Your task to perform on an android device: Open the calendar and show me this week's events Image 0: 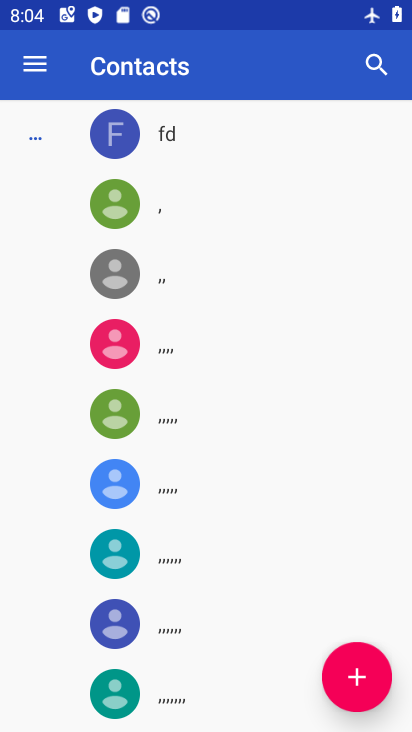
Step 0: press home button
Your task to perform on an android device: Open the calendar and show me this week's events Image 1: 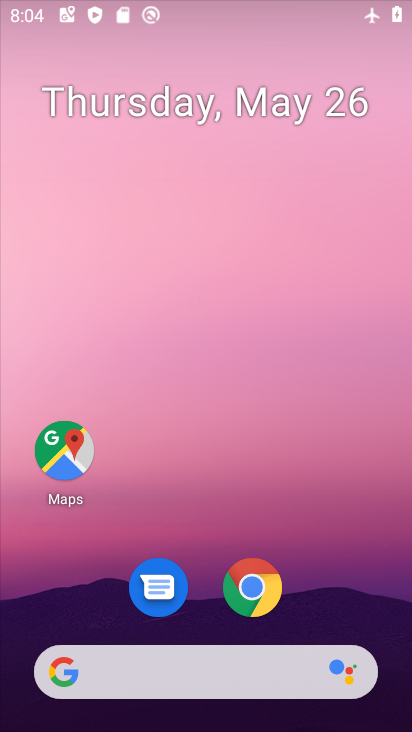
Step 1: drag from (205, 620) to (208, 157)
Your task to perform on an android device: Open the calendar and show me this week's events Image 2: 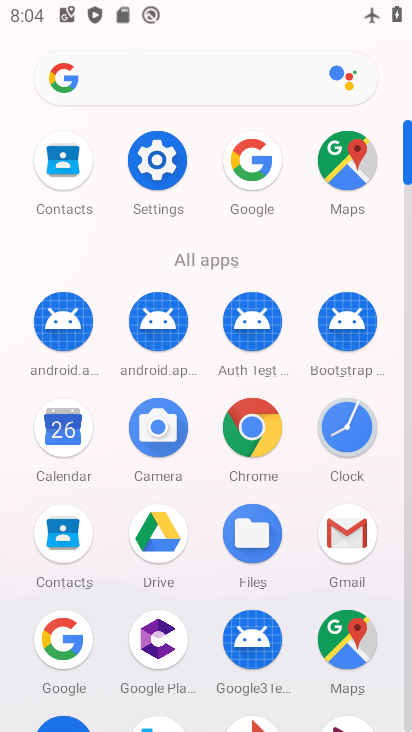
Step 2: click (69, 409)
Your task to perform on an android device: Open the calendar and show me this week's events Image 3: 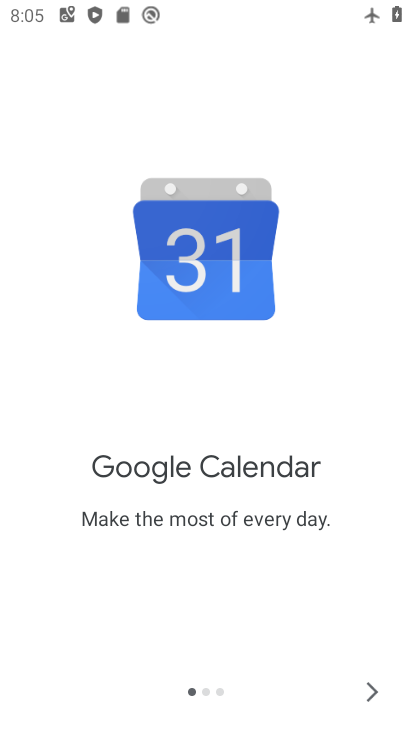
Step 3: click (368, 668)
Your task to perform on an android device: Open the calendar and show me this week's events Image 4: 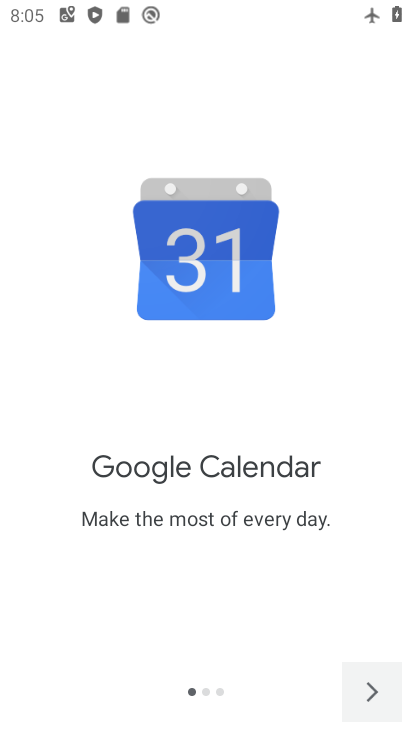
Step 4: click (373, 684)
Your task to perform on an android device: Open the calendar and show me this week's events Image 5: 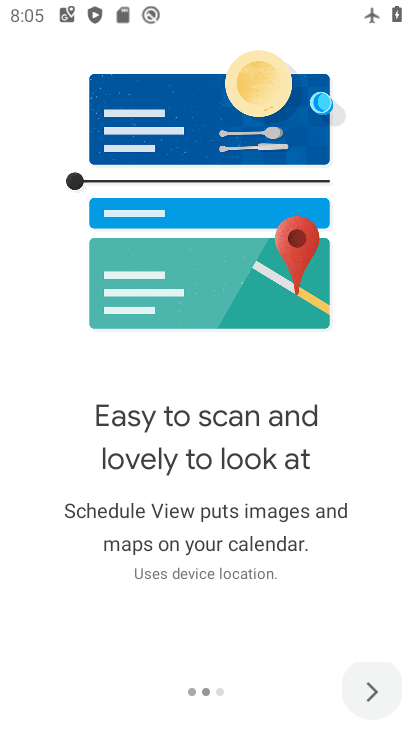
Step 5: click (373, 684)
Your task to perform on an android device: Open the calendar and show me this week's events Image 6: 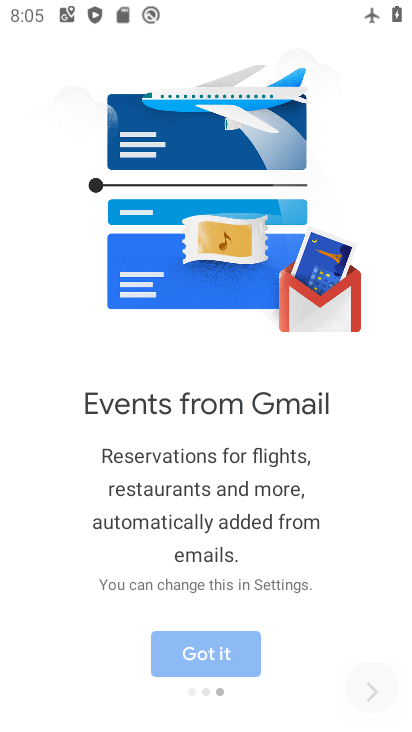
Step 6: click (372, 684)
Your task to perform on an android device: Open the calendar and show me this week's events Image 7: 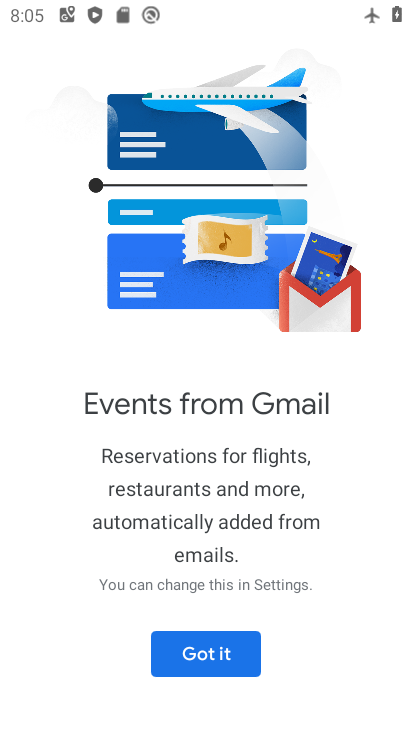
Step 7: click (238, 663)
Your task to perform on an android device: Open the calendar and show me this week's events Image 8: 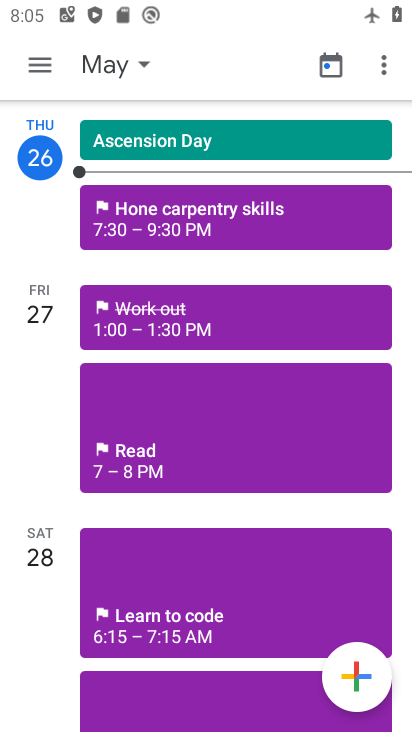
Step 8: click (148, 66)
Your task to perform on an android device: Open the calendar and show me this week's events Image 9: 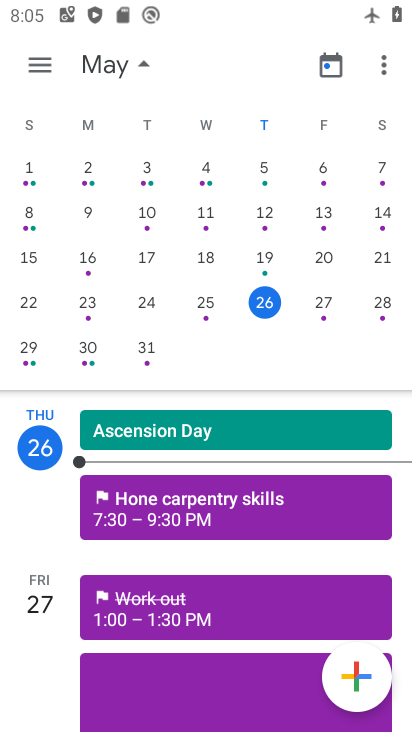
Step 9: task complete